Your task to perform on an android device: Open Google Maps Image 0: 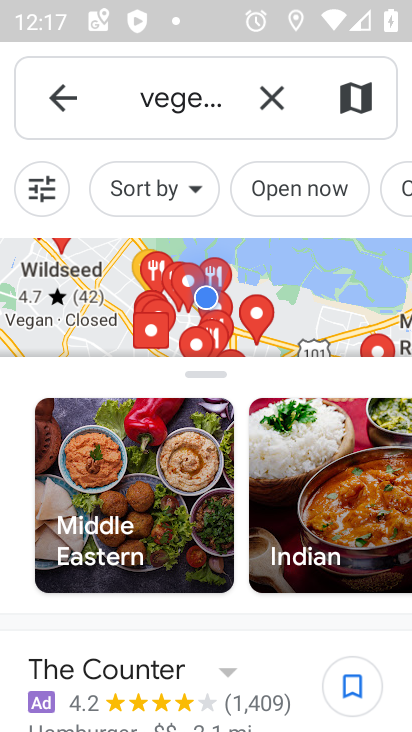
Step 0: press home button
Your task to perform on an android device: Open Google Maps Image 1: 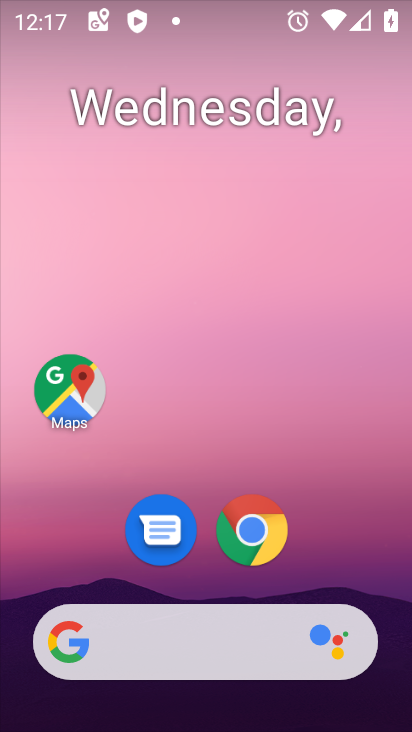
Step 1: click (66, 390)
Your task to perform on an android device: Open Google Maps Image 2: 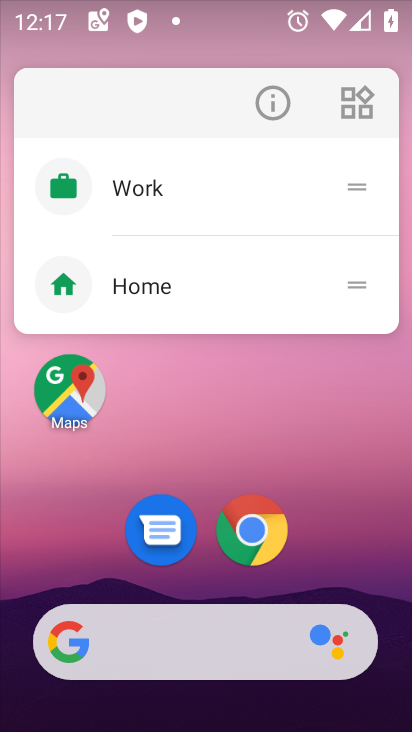
Step 2: click (72, 391)
Your task to perform on an android device: Open Google Maps Image 3: 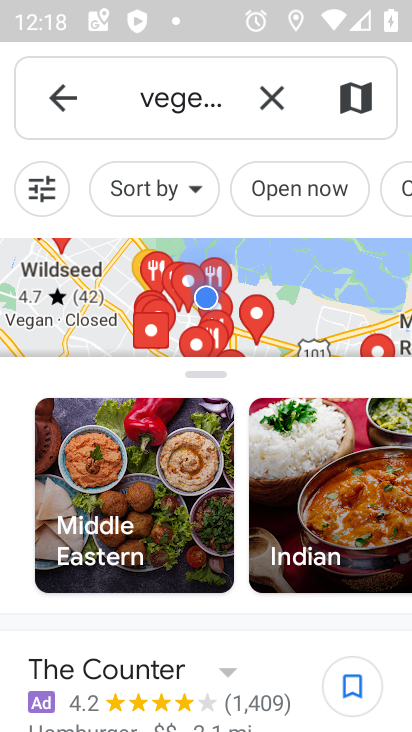
Step 3: task complete